Your task to perform on an android device: turn off javascript in the chrome app Image 0: 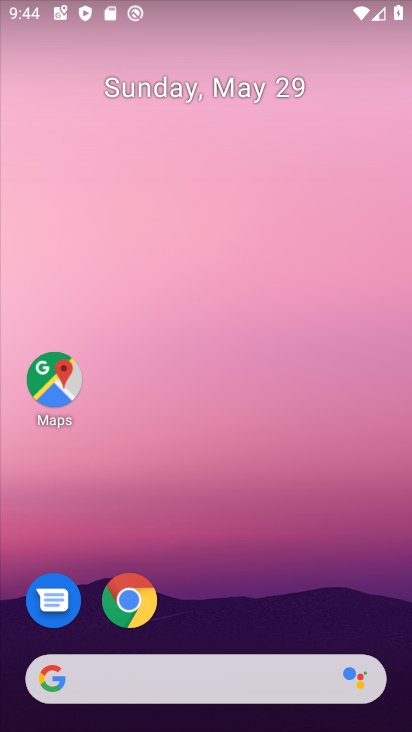
Step 0: click (127, 594)
Your task to perform on an android device: turn off javascript in the chrome app Image 1: 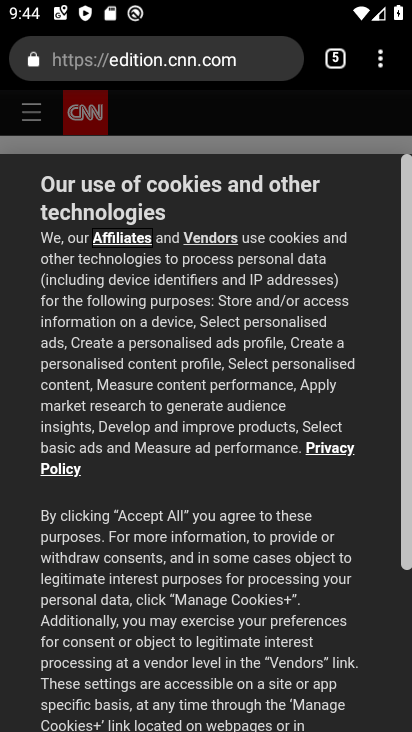
Step 1: click (382, 65)
Your task to perform on an android device: turn off javascript in the chrome app Image 2: 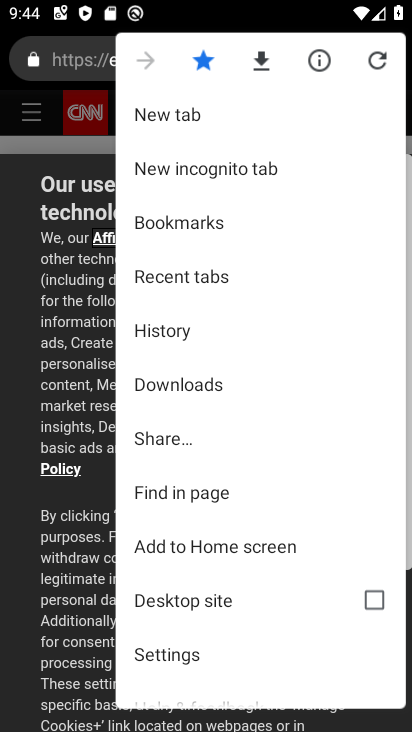
Step 2: click (172, 647)
Your task to perform on an android device: turn off javascript in the chrome app Image 3: 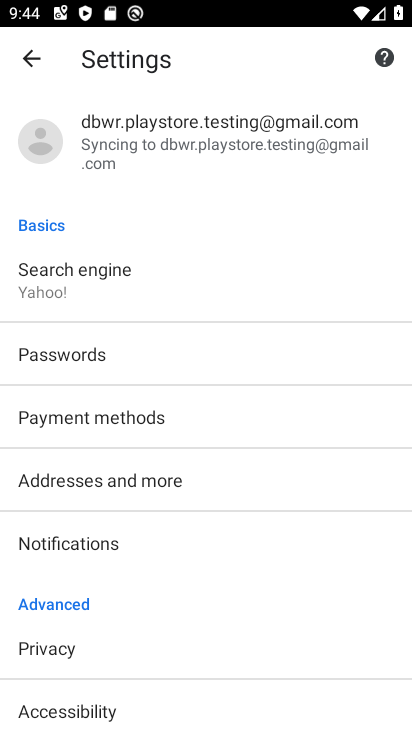
Step 3: drag from (41, 712) to (43, 346)
Your task to perform on an android device: turn off javascript in the chrome app Image 4: 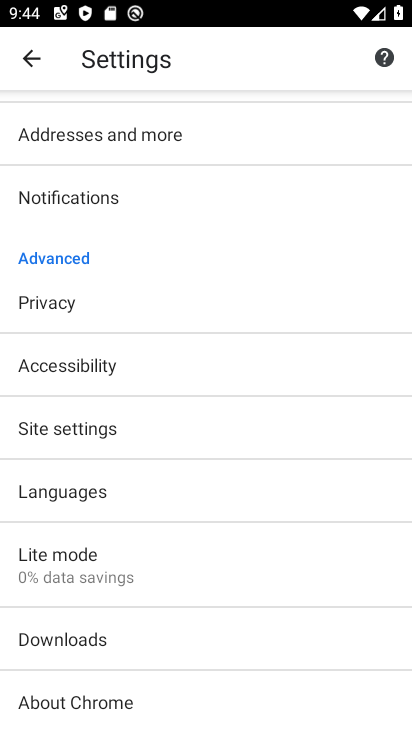
Step 4: click (86, 424)
Your task to perform on an android device: turn off javascript in the chrome app Image 5: 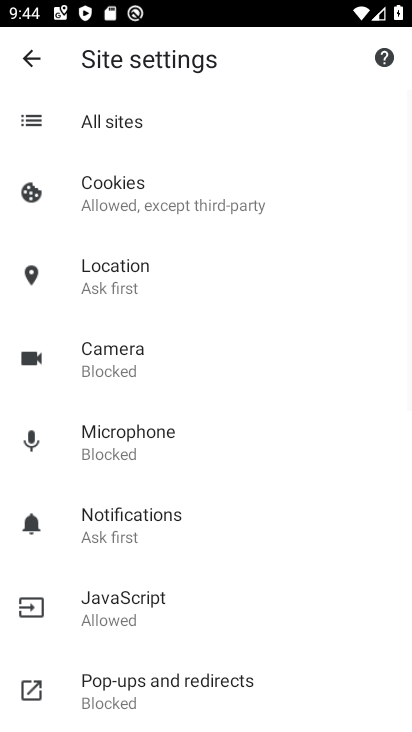
Step 5: click (111, 613)
Your task to perform on an android device: turn off javascript in the chrome app Image 6: 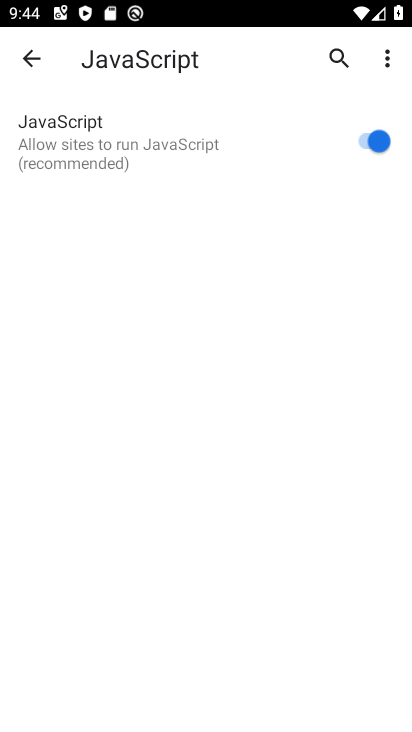
Step 6: click (367, 145)
Your task to perform on an android device: turn off javascript in the chrome app Image 7: 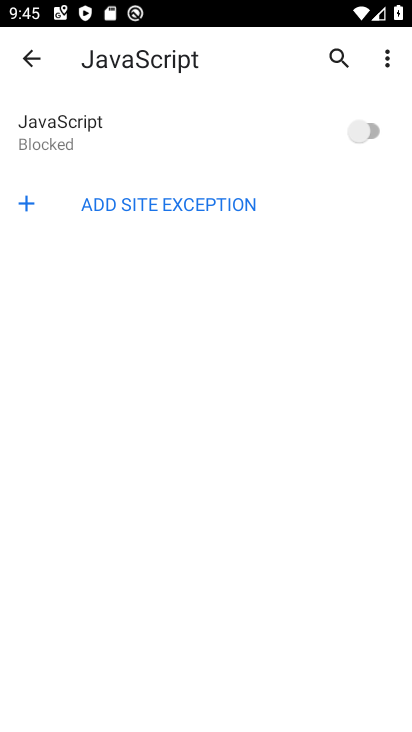
Step 7: task complete